Your task to perform on an android device: Find coffee shops on Maps Image 0: 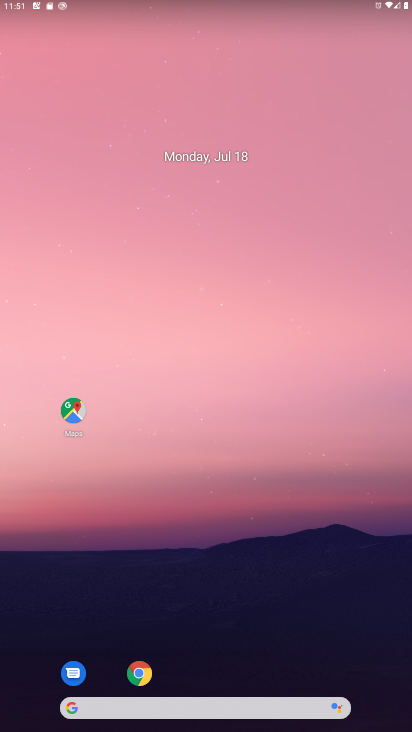
Step 0: click (79, 409)
Your task to perform on an android device: Find coffee shops on Maps Image 1: 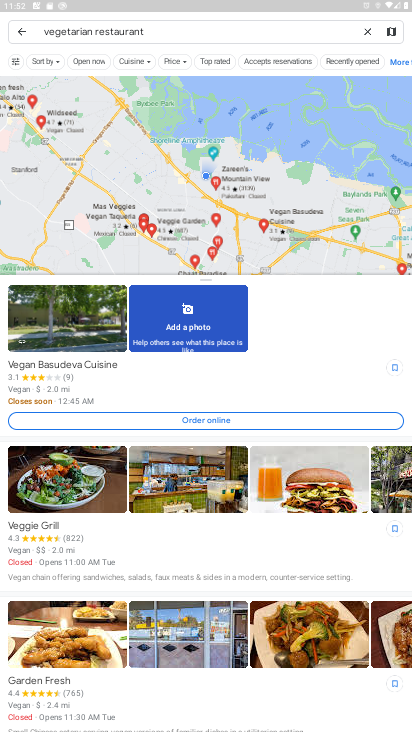
Step 1: click (174, 34)
Your task to perform on an android device: Find coffee shops on Maps Image 2: 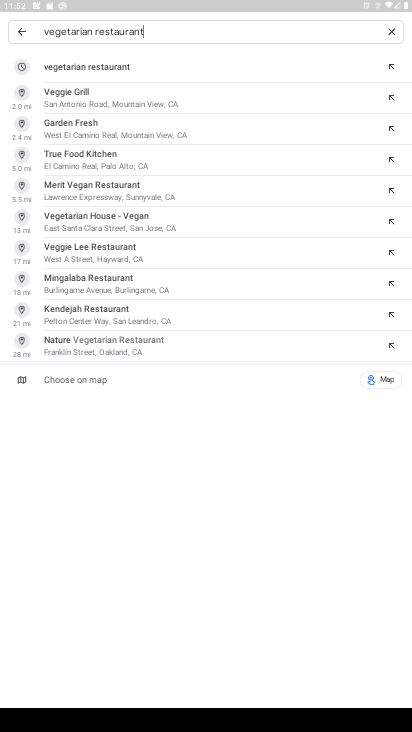
Step 2: click (389, 34)
Your task to perform on an android device: Find coffee shops on Maps Image 3: 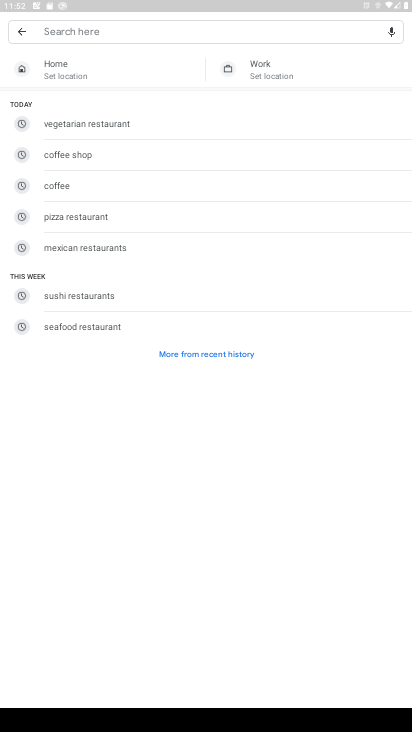
Step 3: click (97, 157)
Your task to perform on an android device: Find coffee shops on Maps Image 4: 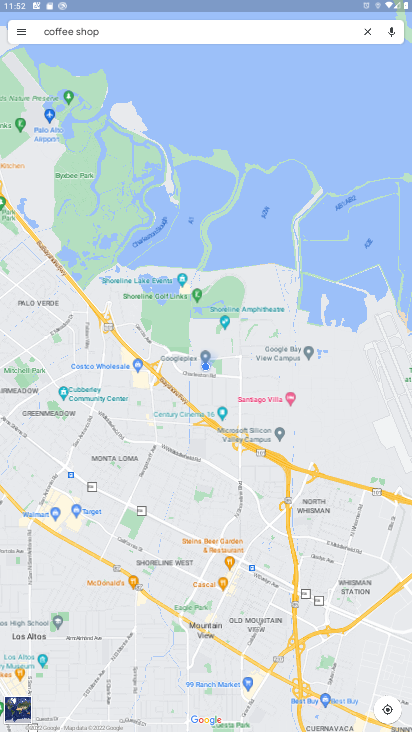
Step 4: task complete